Your task to perform on an android device: uninstall "Etsy: Buy & Sell Unique Items" Image 0: 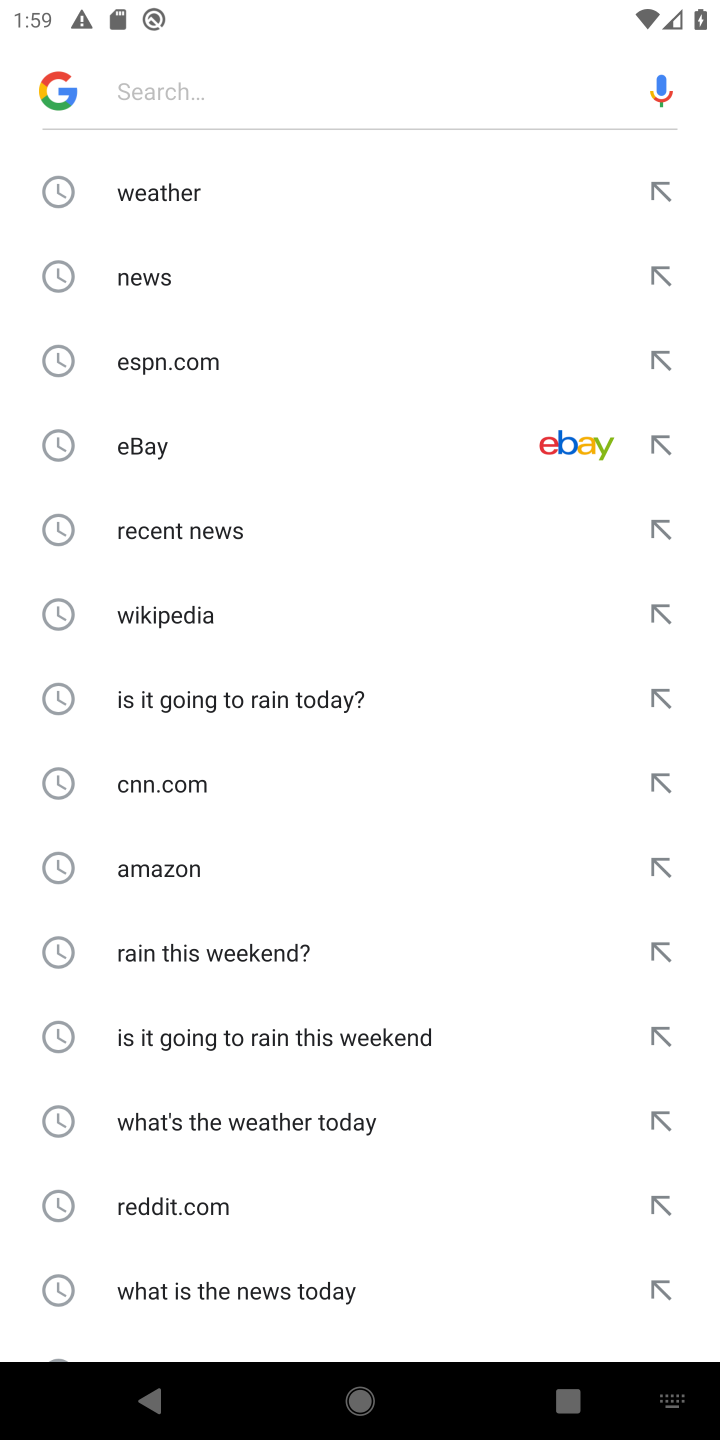
Step 0: press home button
Your task to perform on an android device: uninstall "Etsy: Buy & Sell Unique Items" Image 1: 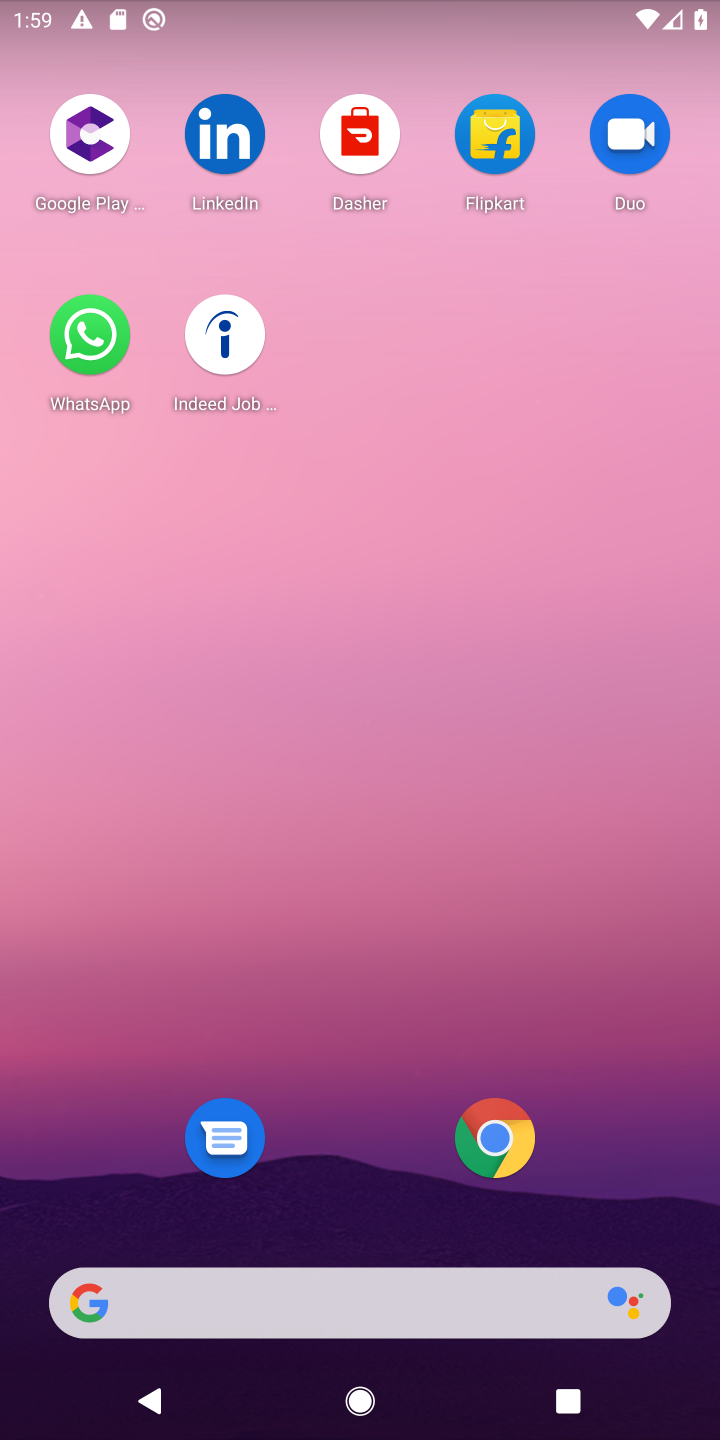
Step 1: drag from (355, 1237) to (331, 102)
Your task to perform on an android device: uninstall "Etsy: Buy & Sell Unique Items" Image 2: 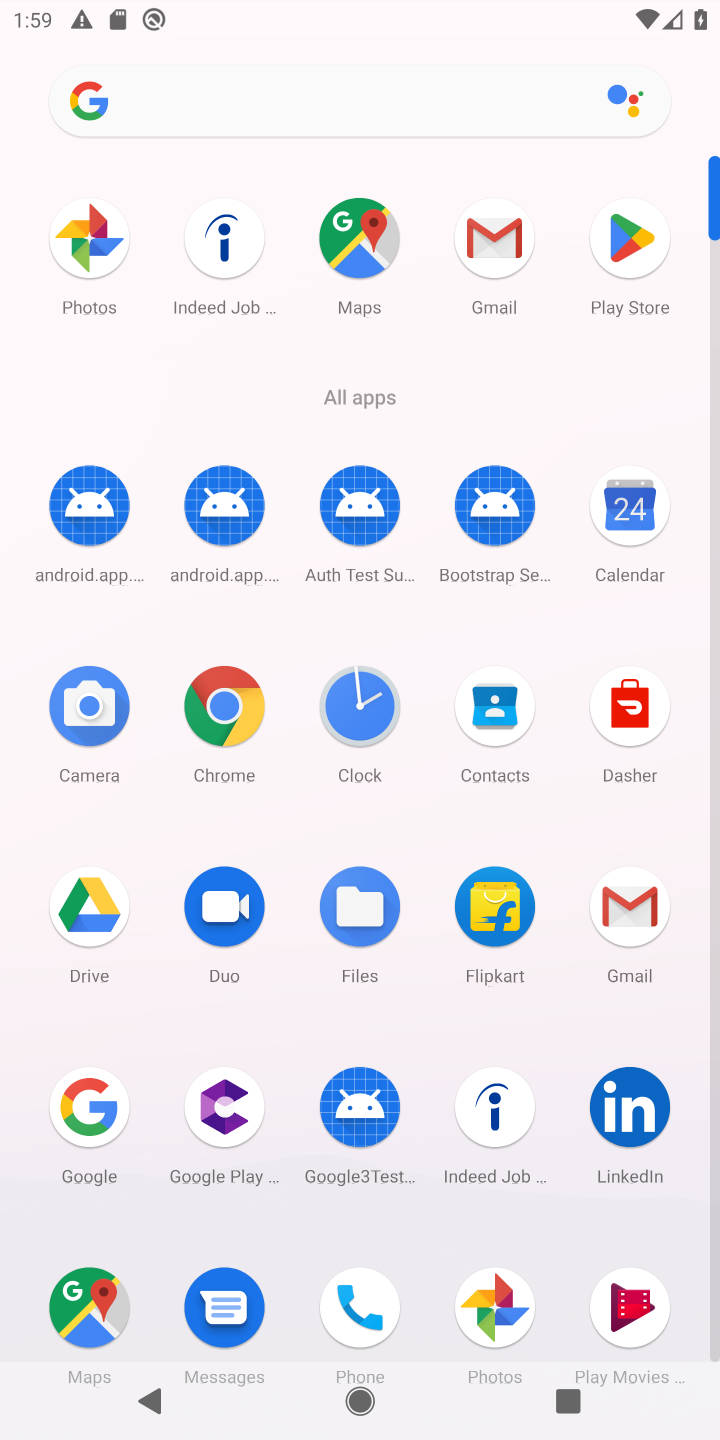
Step 2: click (626, 244)
Your task to perform on an android device: uninstall "Etsy: Buy & Sell Unique Items" Image 3: 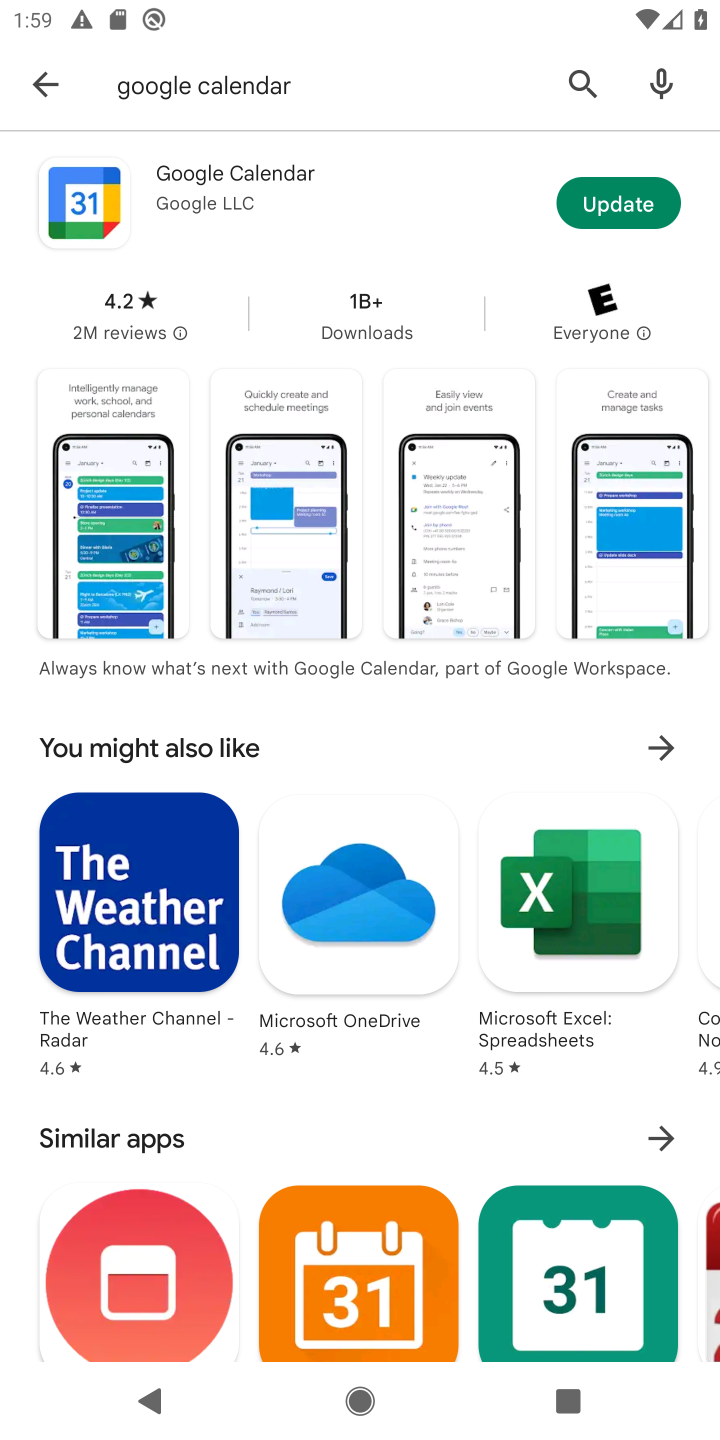
Step 3: click (579, 72)
Your task to perform on an android device: uninstall "Etsy: Buy & Sell Unique Items" Image 4: 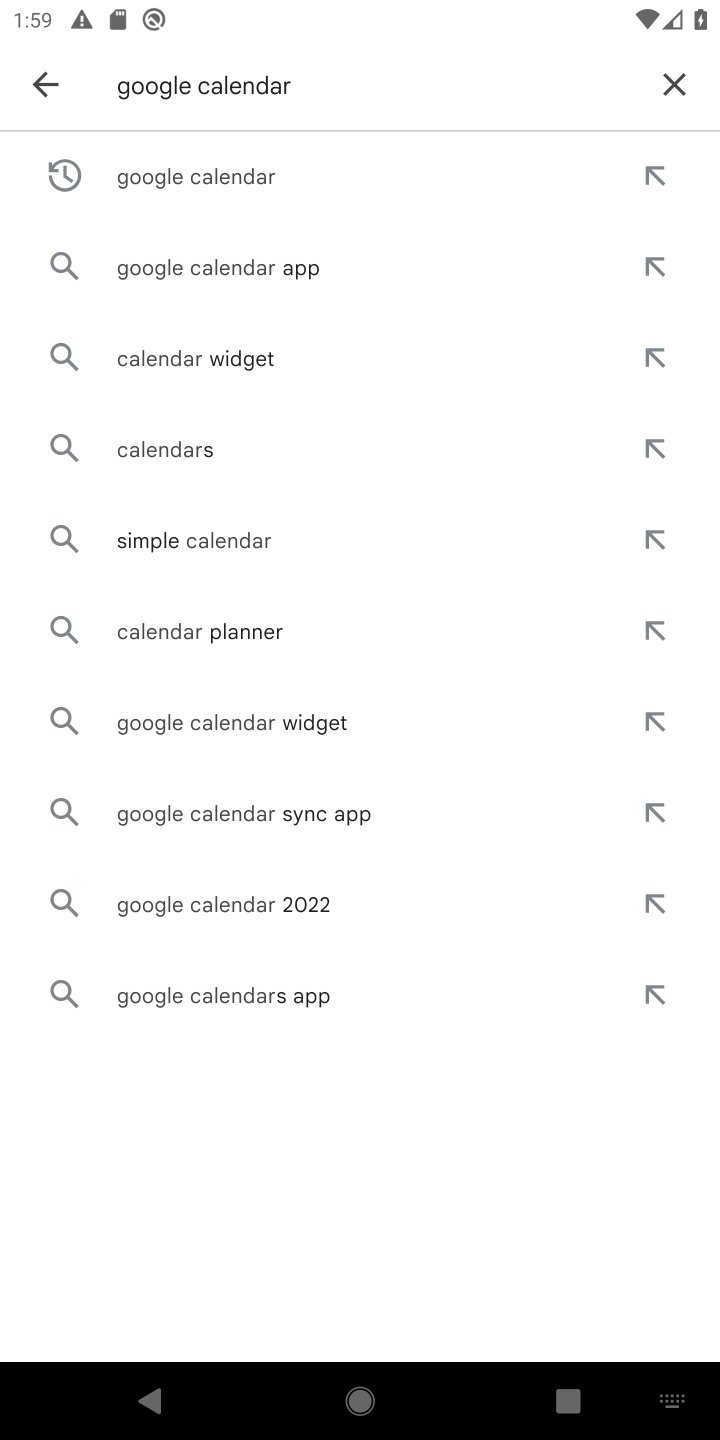
Step 4: click (673, 72)
Your task to perform on an android device: uninstall "Etsy: Buy & Sell Unique Items" Image 5: 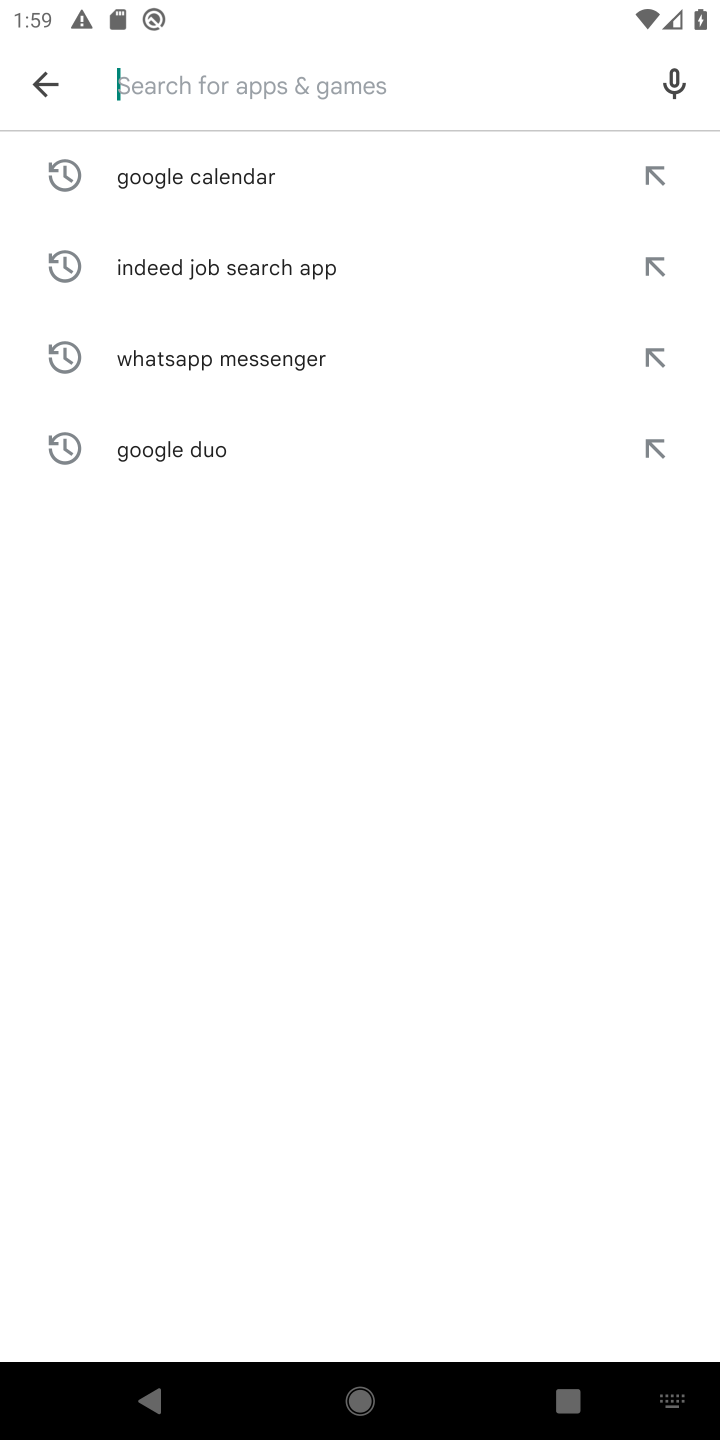
Step 5: type "Etsy: Buy & Sell Unique Items"
Your task to perform on an android device: uninstall "Etsy: Buy & Sell Unique Items" Image 6: 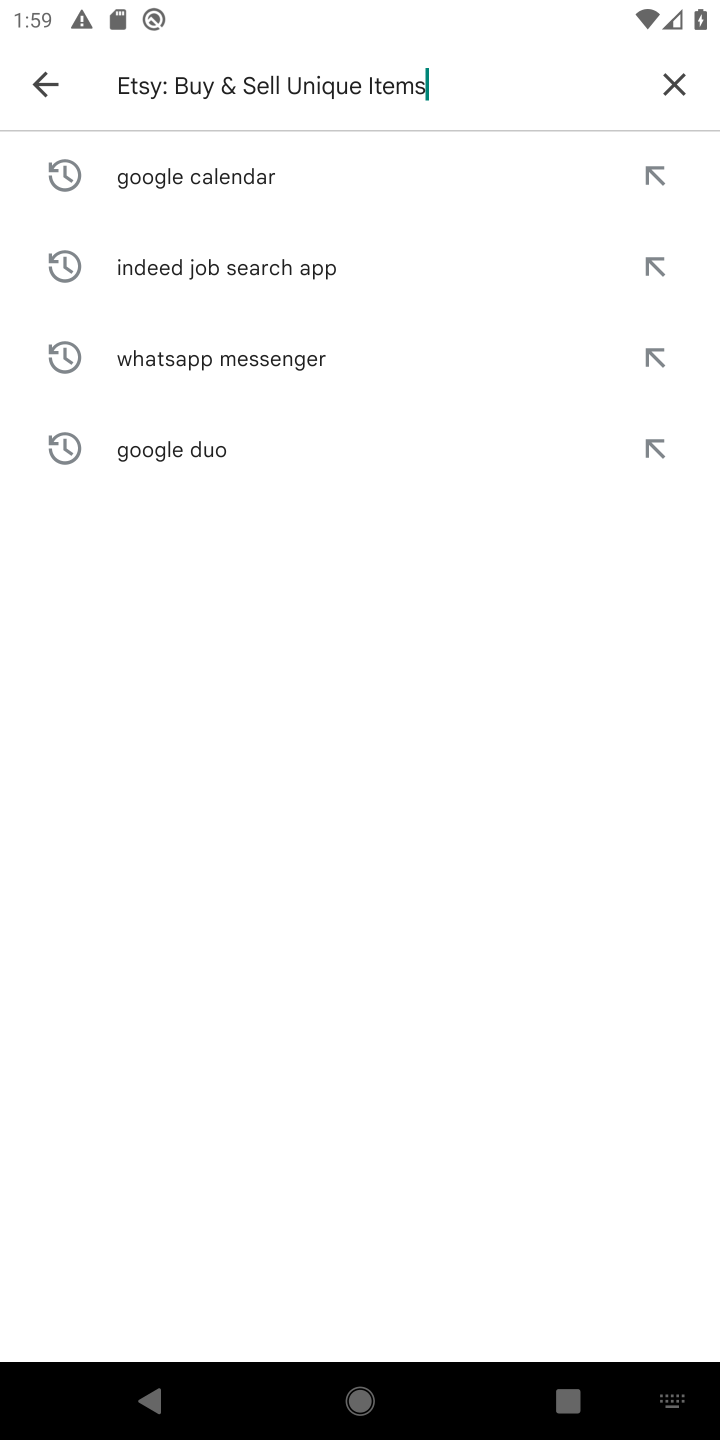
Step 6: type ""
Your task to perform on an android device: uninstall "Etsy: Buy & Sell Unique Items" Image 7: 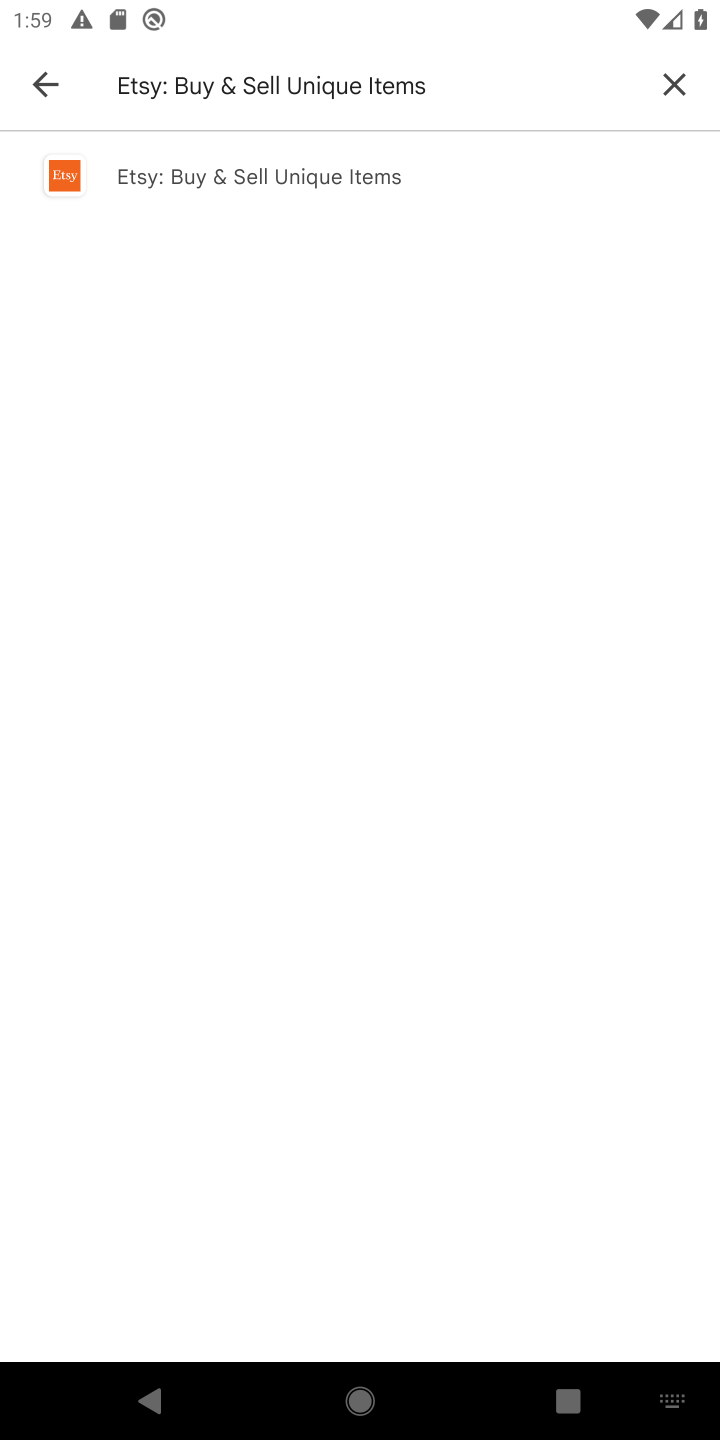
Step 7: click (245, 171)
Your task to perform on an android device: uninstall "Etsy: Buy & Sell Unique Items" Image 8: 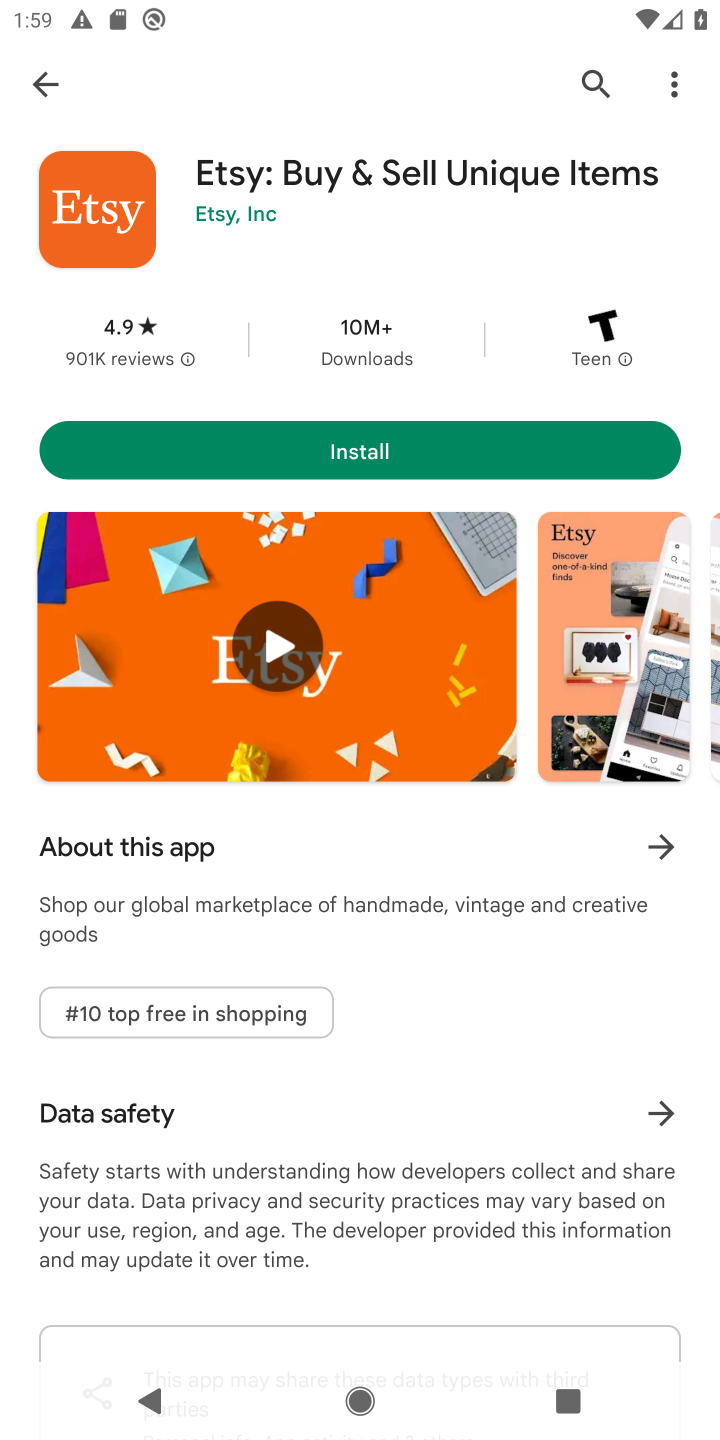
Step 8: task complete